Your task to perform on an android device: Is it going to rain tomorrow? Image 0: 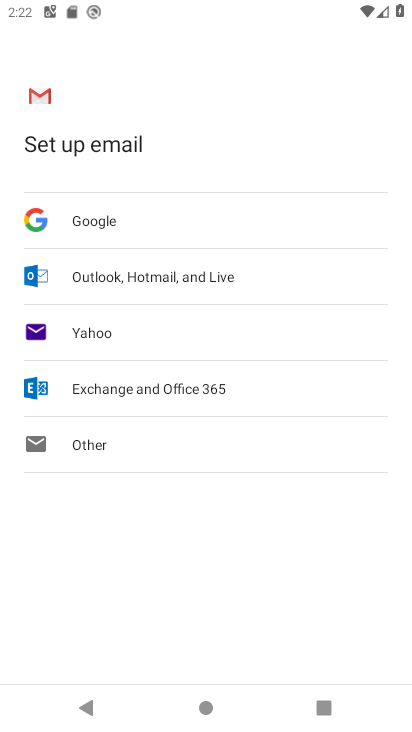
Step 0: press home button
Your task to perform on an android device: Is it going to rain tomorrow? Image 1: 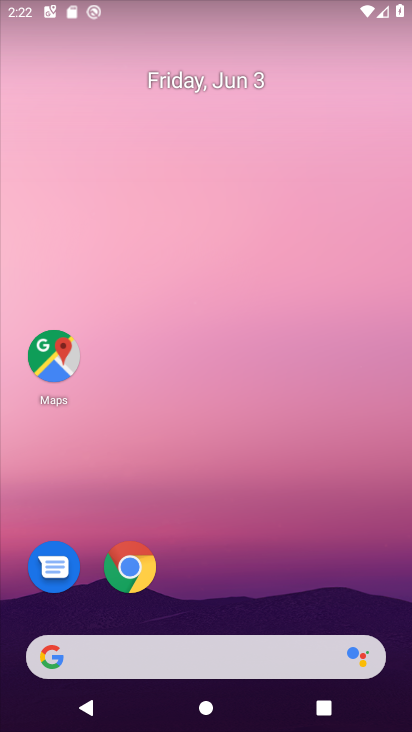
Step 1: drag from (228, 548) to (245, 199)
Your task to perform on an android device: Is it going to rain tomorrow? Image 2: 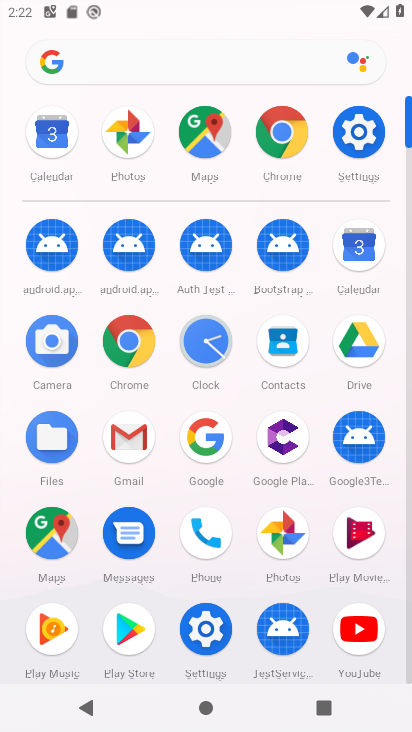
Step 2: click (277, 138)
Your task to perform on an android device: Is it going to rain tomorrow? Image 3: 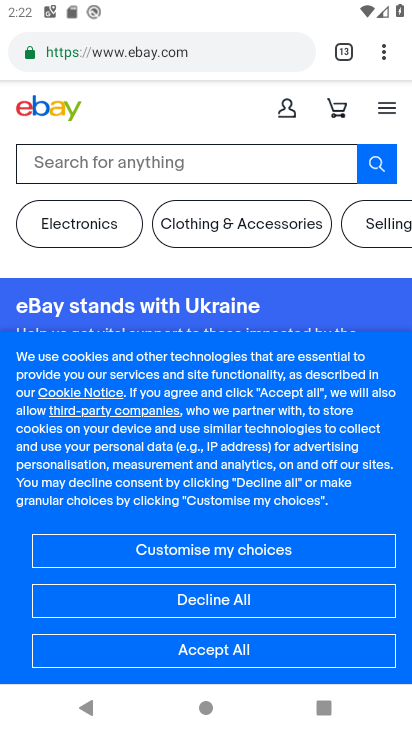
Step 3: click (375, 50)
Your task to perform on an android device: Is it going to rain tomorrow? Image 4: 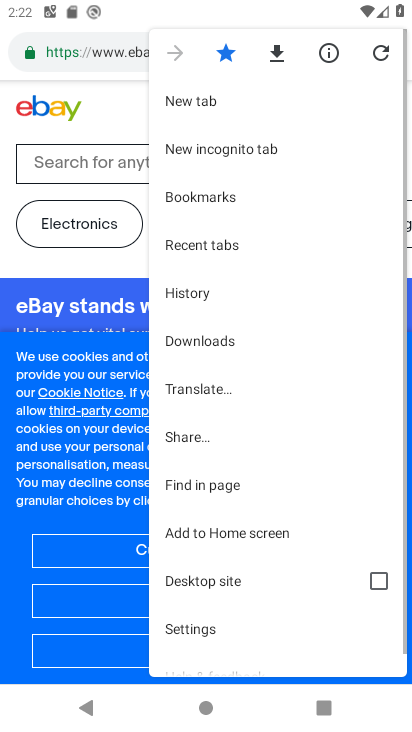
Step 4: click (193, 98)
Your task to perform on an android device: Is it going to rain tomorrow? Image 5: 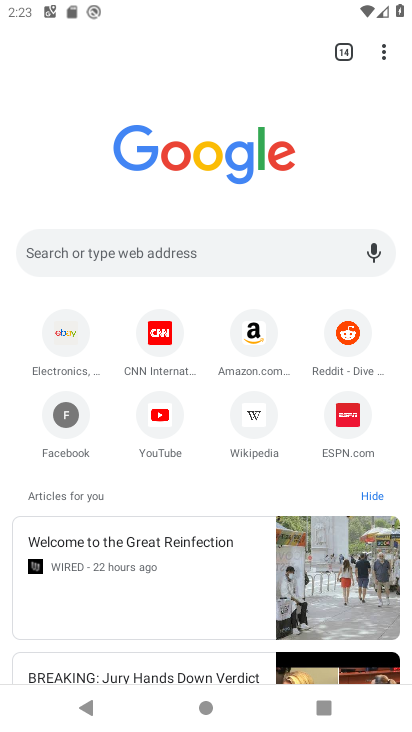
Step 5: click (236, 229)
Your task to perform on an android device: Is it going to rain tomorrow? Image 6: 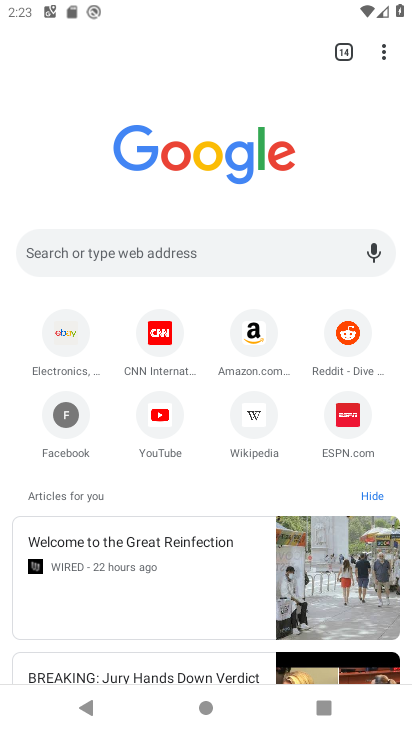
Step 6: click (278, 239)
Your task to perform on an android device: Is it going to rain tomorrow? Image 7: 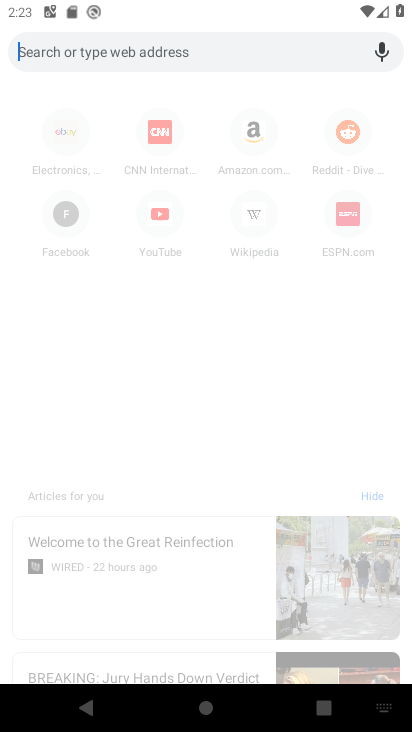
Step 7: type "Is it going to rain tomorrow"
Your task to perform on an android device: Is it going to rain tomorrow? Image 8: 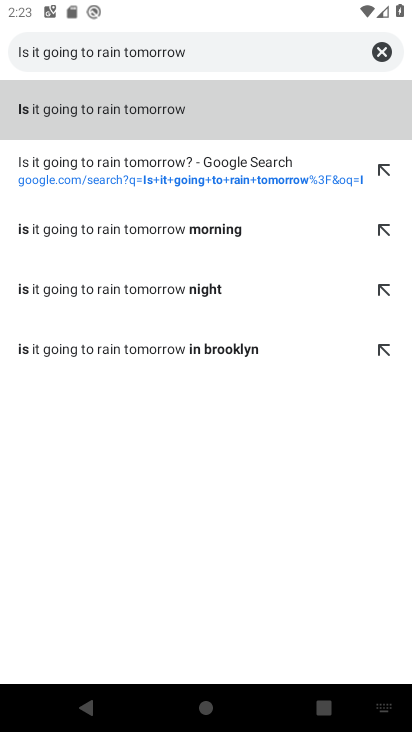
Step 8: click (209, 101)
Your task to perform on an android device: Is it going to rain tomorrow? Image 9: 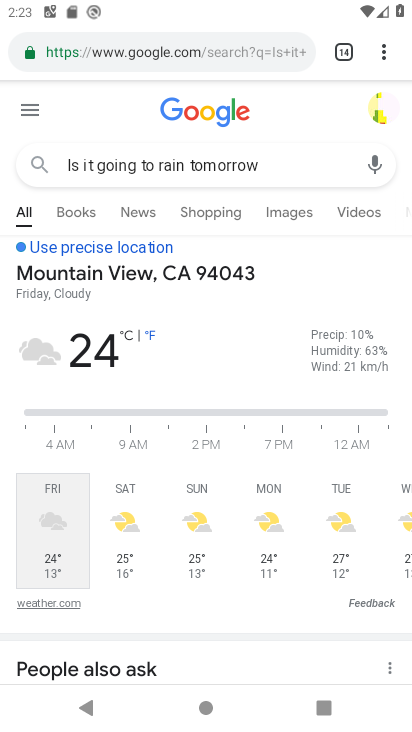
Step 9: task complete